Your task to perform on an android device: Open location settings Image 0: 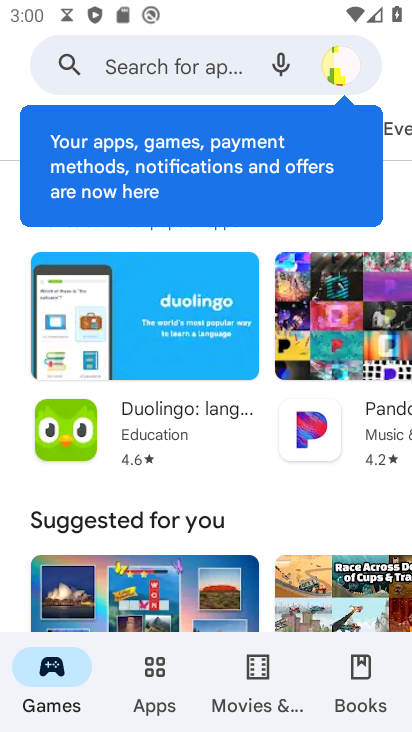
Step 0: press home button
Your task to perform on an android device: Open location settings Image 1: 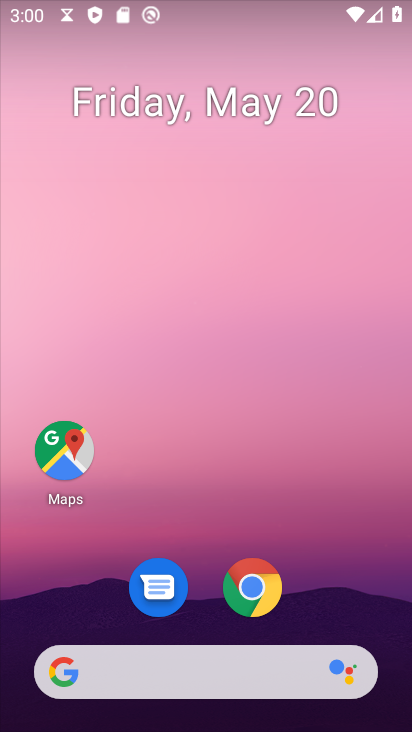
Step 1: drag from (361, 598) to (286, 9)
Your task to perform on an android device: Open location settings Image 2: 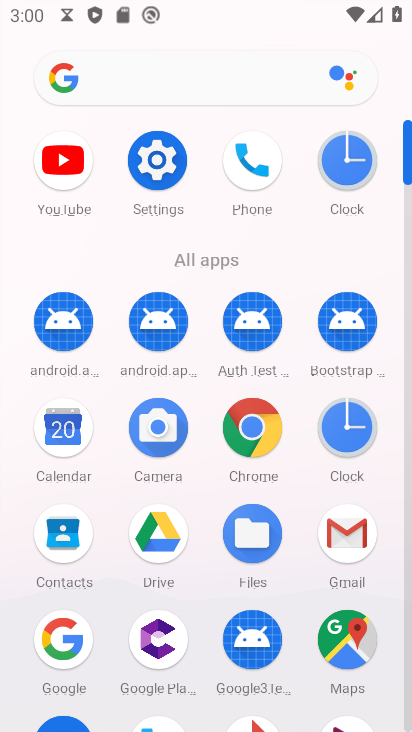
Step 2: click (174, 162)
Your task to perform on an android device: Open location settings Image 3: 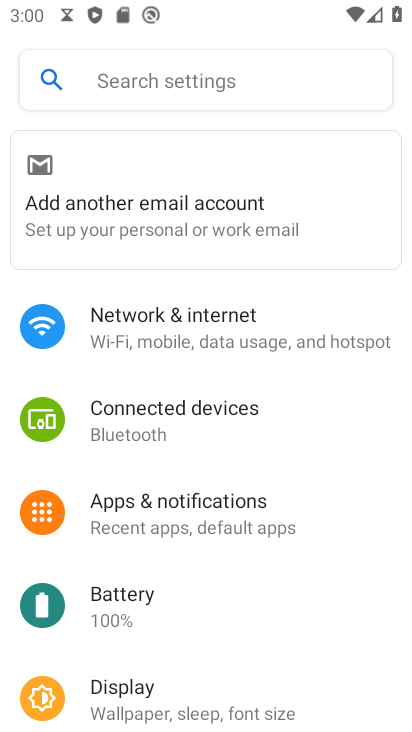
Step 3: drag from (220, 653) to (237, 96)
Your task to perform on an android device: Open location settings Image 4: 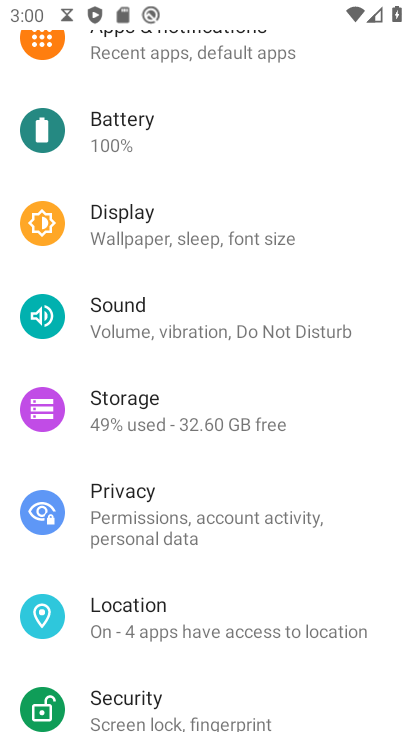
Step 4: click (240, 620)
Your task to perform on an android device: Open location settings Image 5: 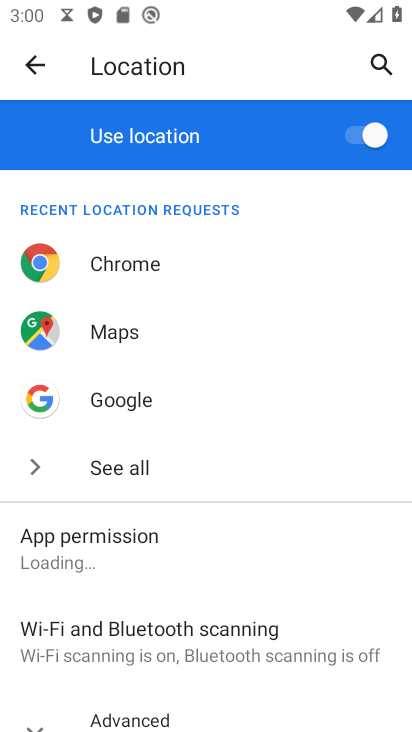
Step 5: drag from (251, 682) to (205, 365)
Your task to perform on an android device: Open location settings Image 6: 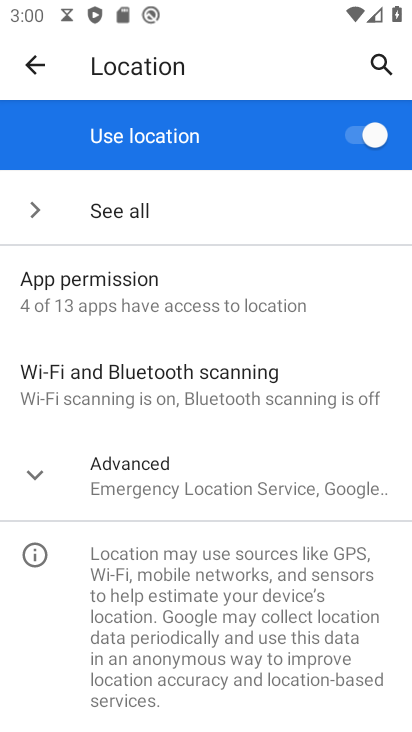
Step 6: click (223, 469)
Your task to perform on an android device: Open location settings Image 7: 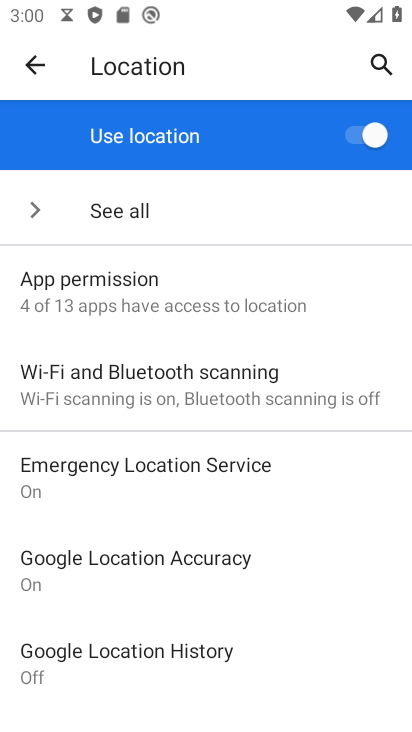
Step 7: task complete